Your task to perform on an android device: turn pop-ups off in chrome Image 0: 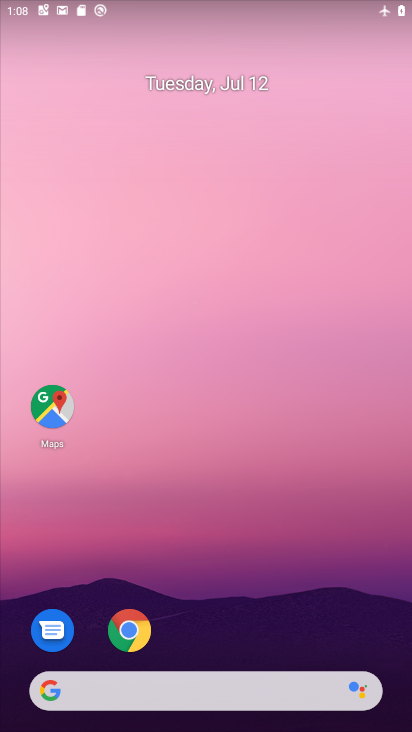
Step 0: drag from (247, 547) to (253, 246)
Your task to perform on an android device: turn pop-ups off in chrome Image 1: 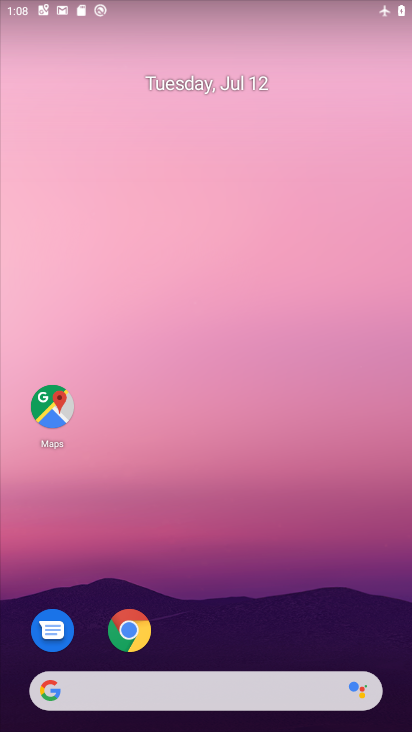
Step 1: click (137, 635)
Your task to perform on an android device: turn pop-ups off in chrome Image 2: 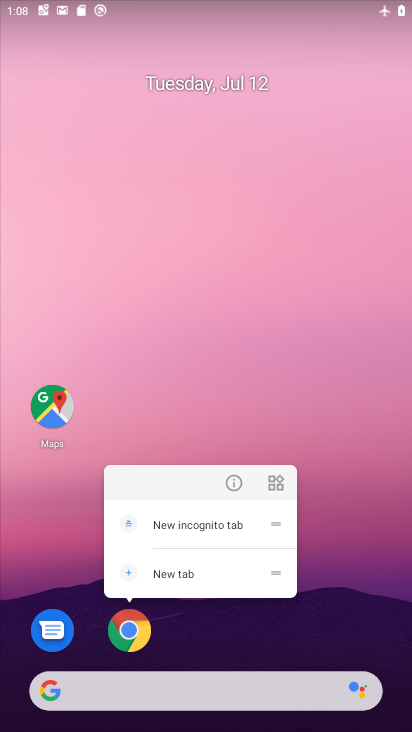
Step 2: click (131, 634)
Your task to perform on an android device: turn pop-ups off in chrome Image 3: 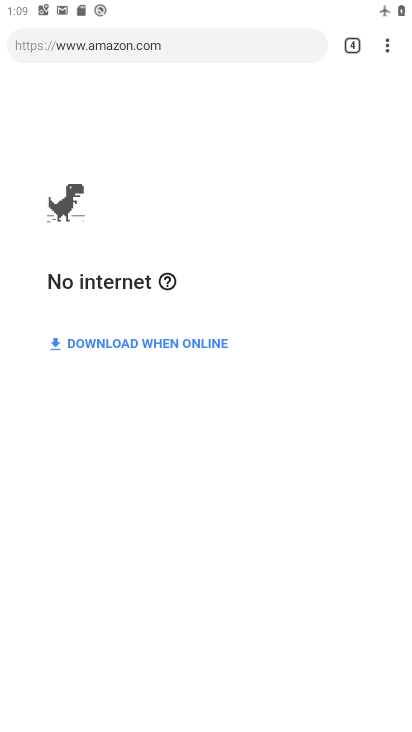
Step 3: click (385, 40)
Your task to perform on an android device: turn pop-ups off in chrome Image 4: 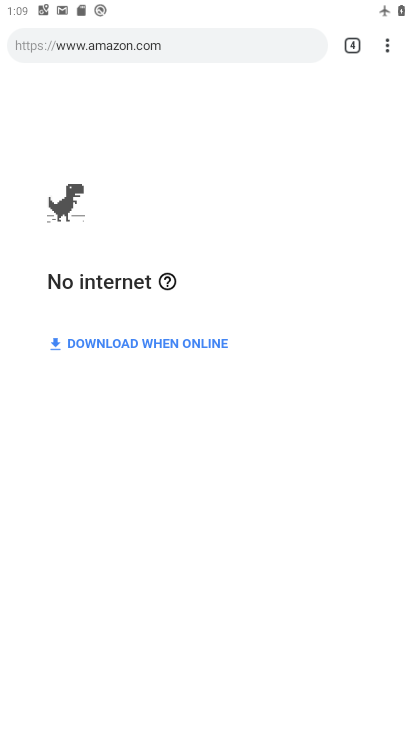
Step 4: click (394, 50)
Your task to perform on an android device: turn pop-ups off in chrome Image 5: 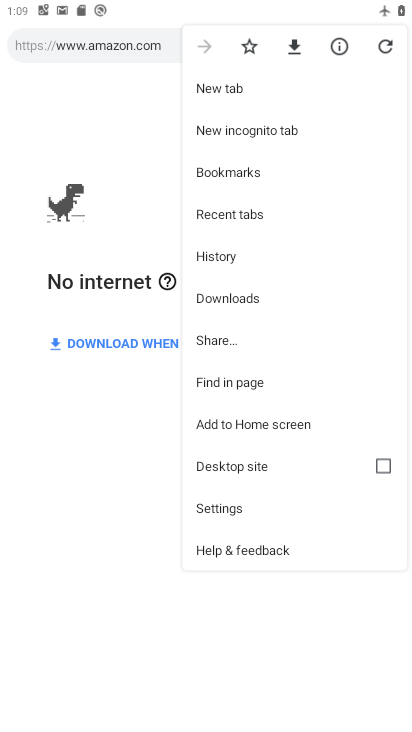
Step 5: click (232, 503)
Your task to perform on an android device: turn pop-ups off in chrome Image 6: 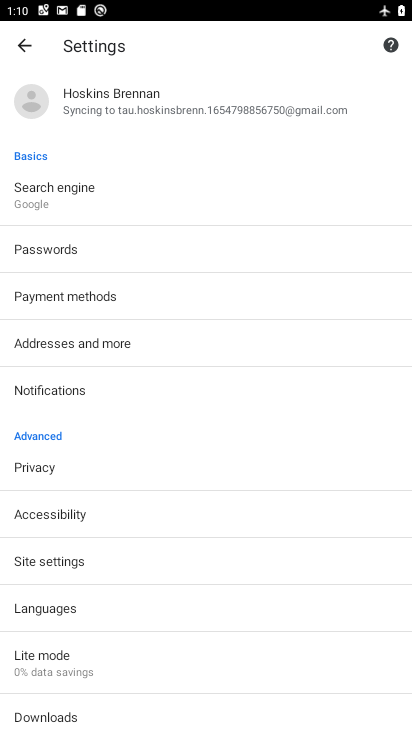
Step 6: click (98, 566)
Your task to perform on an android device: turn pop-ups off in chrome Image 7: 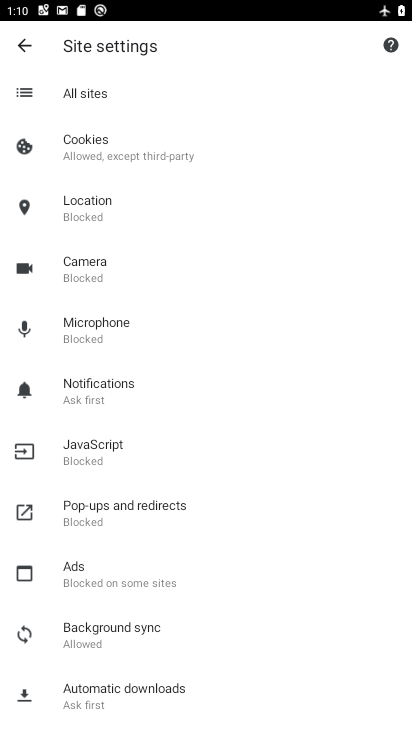
Step 7: click (90, 527)
Your task to perform on an android device: turn pop-ups off in chrome Image 8: 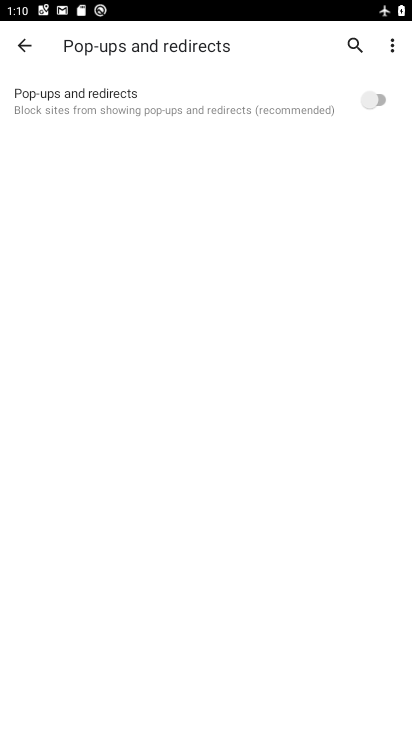
Step 8: task complete